Your task to perform on an android device: check storage Image 0: 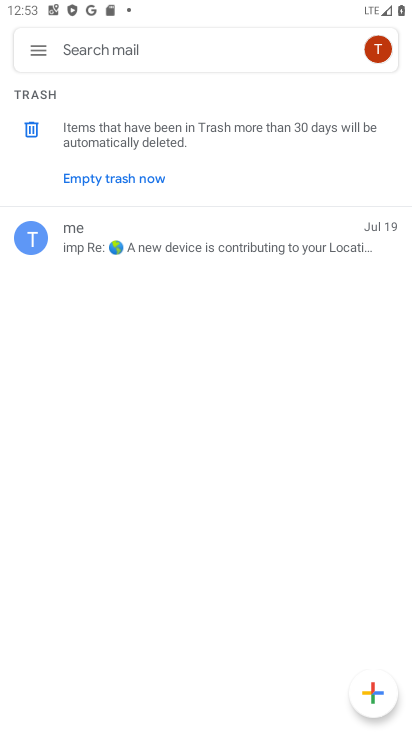
Step 0: press home button
Your task to perform on an android device: check storage Image 1: 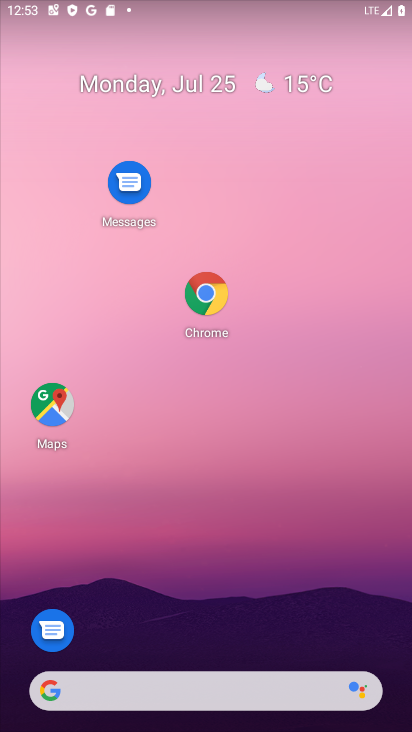
Step 1: drag from (250, 623) to (332, 142)
Your task to perform on an android device: check storage Image 2: 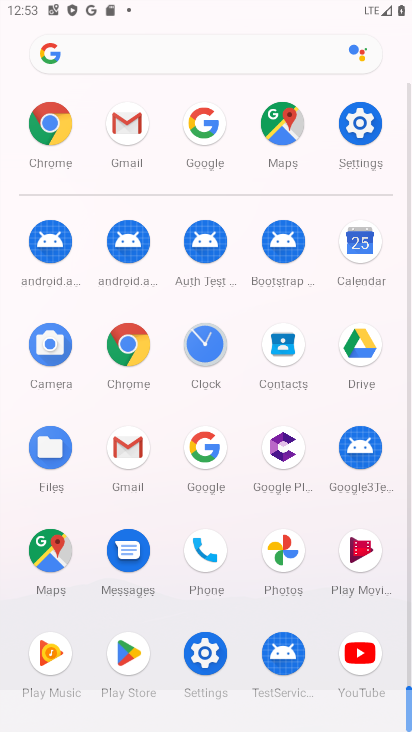
Step 2: click (216, 647)
Your task to perform on an android device: check storage Image 3: 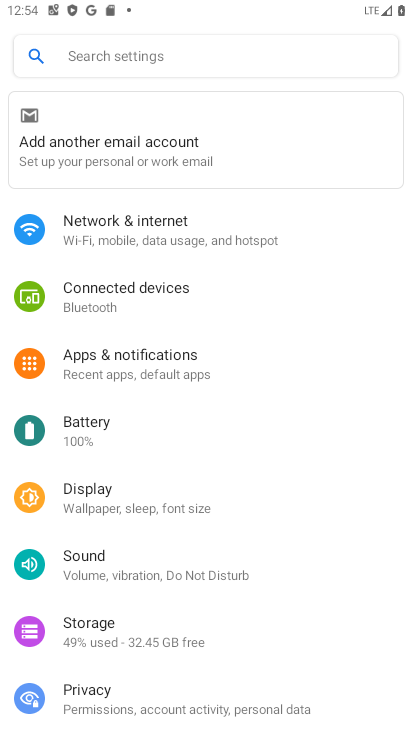
Step 3: click (98, 620)
Your task to perform on an android device: check storage Image 4: 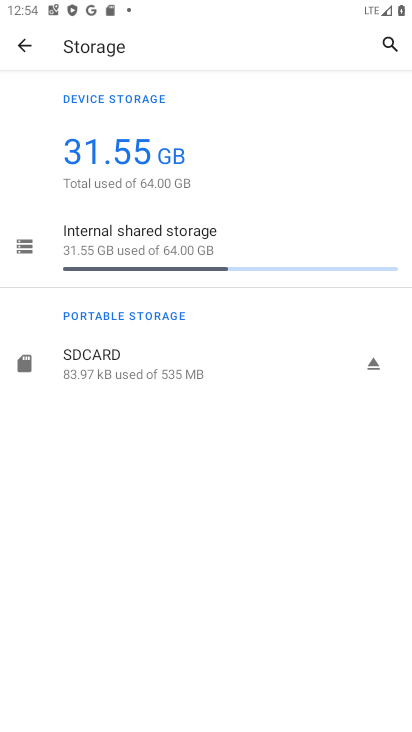
Step 4: task complete